Your task to perform on an android device: turn on notifications settings in the gmail app Image 0: 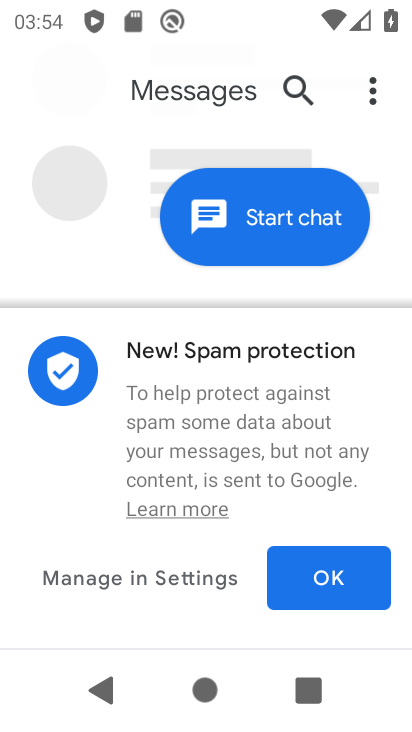
Step 0: press home button
Your task to perform on an android device: turn on notifications settings in the gmail app Image 1: 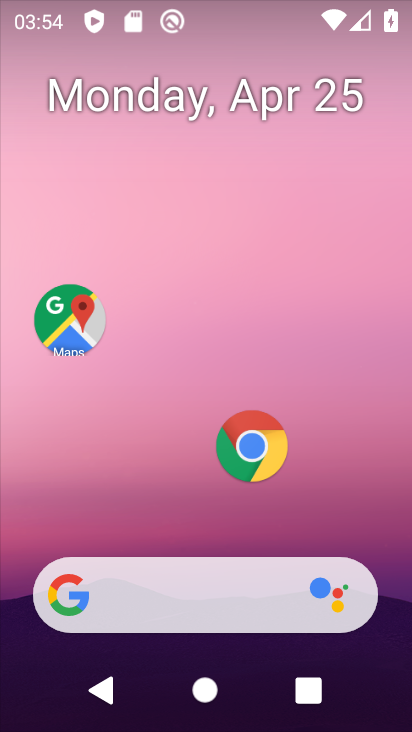
Step 1: drag from (151, 506) to (217, 162)
Your task to perform on an android device: turn on notifications settings in the gmail app Image 2: 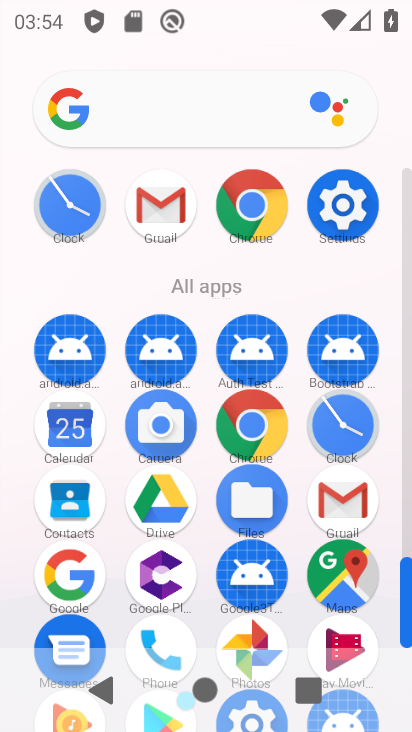
Step 2: click (347, 485)
Your task to perform on an android device: turn on notifications settings in the gmail app Image 3: 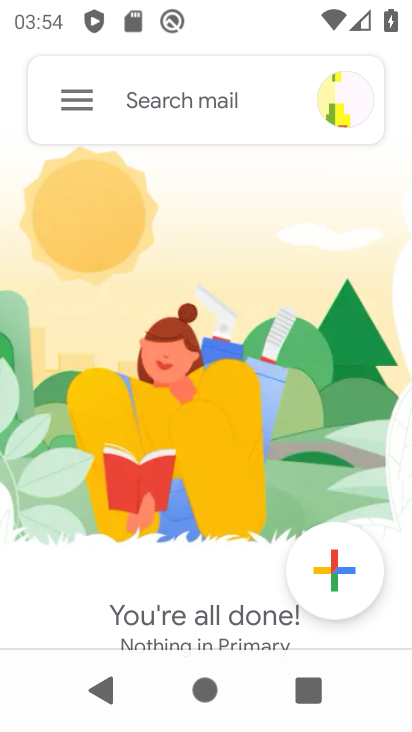
Step 3: click (103, 104)
Your task to perform on an android device: turn on notifications settings in the gmail app Image 4: 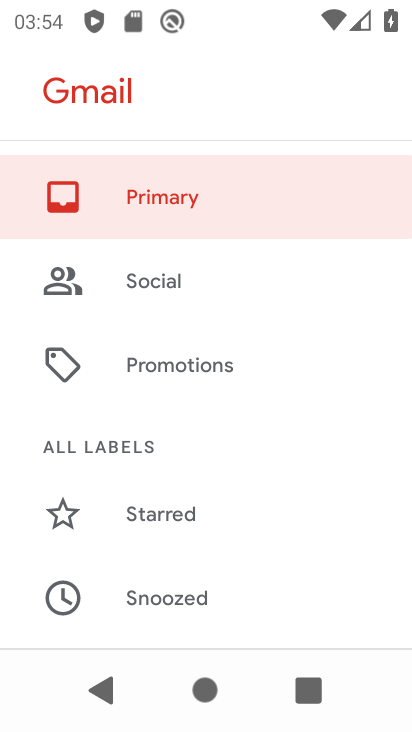
Step 4: drag from (167, 557) to (201, 213)
Your task to perform on an android device: turn on notifications settings in the gmail app Image 5: 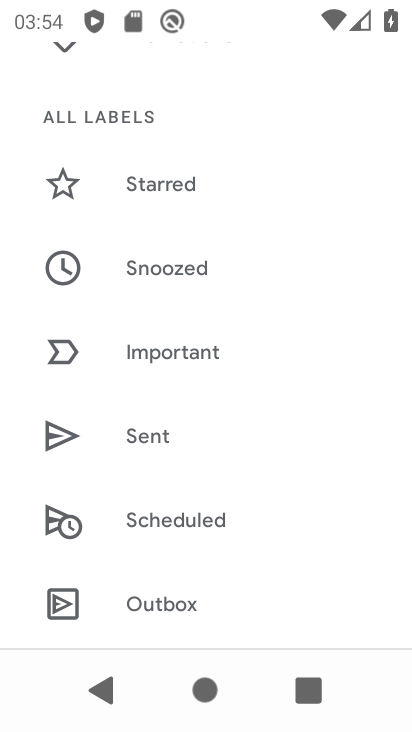
Step 5: drag from (209, 592) to (241, 96)
Your task to perform on an android device: turn on notifications settings in the gmail app Image 6: 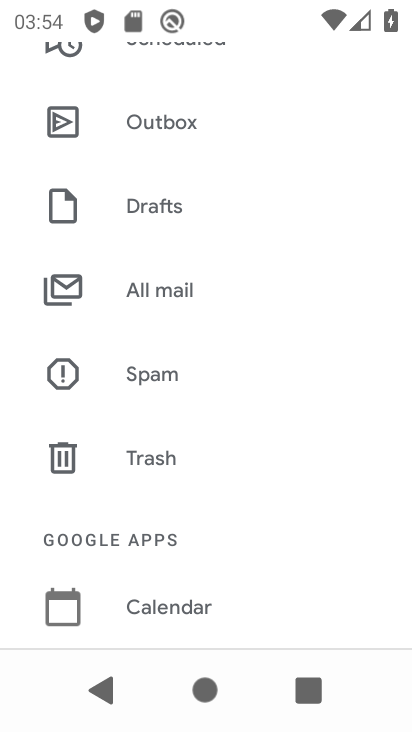
Step 6: drag from (189, 517) to (200, 251)
Your task to perform on an android device: turn on notifications settings in the gmail app Image 7: 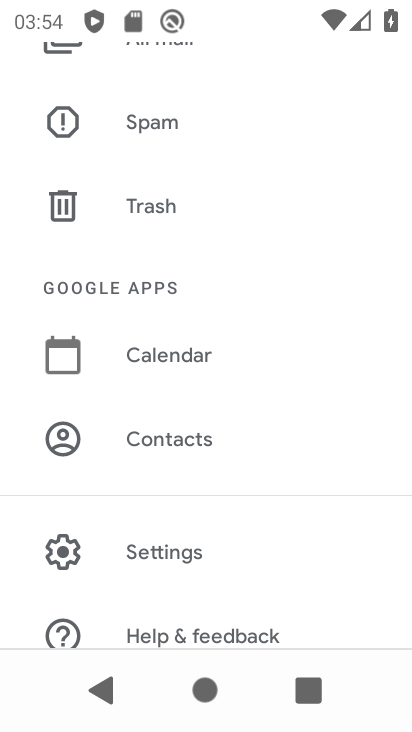
Step 7: click (152, 539)
Your task to perform on an android device: turn on notifications settings in the gmail app Image 8: 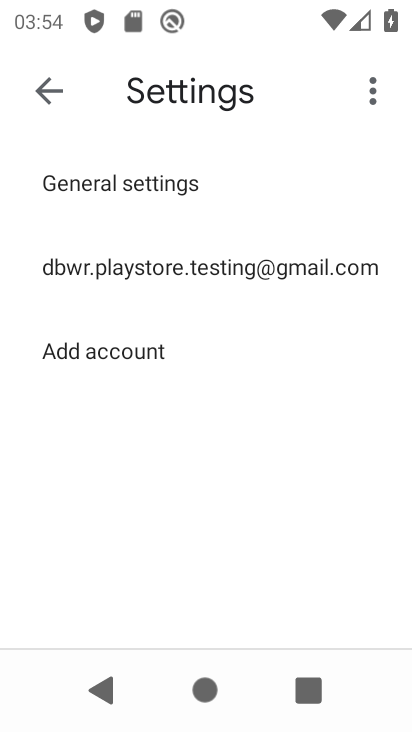
Step 8: click (206, 271)
Your task to perform on an android device: turn on notifications settings in the gmail app Image 9: 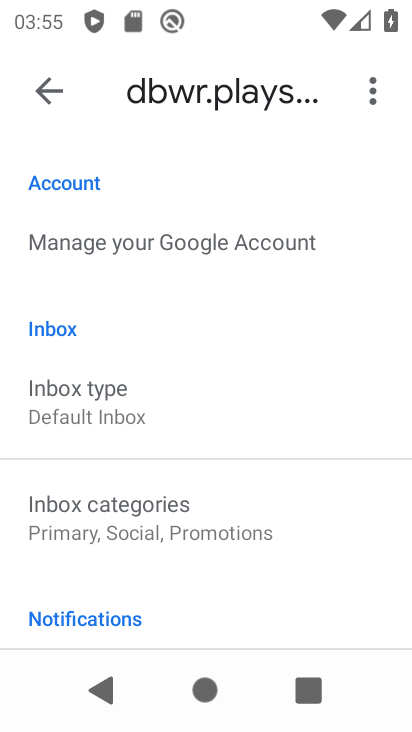
Step 9: drag from (135, 548) to (212, 236)
Your task to perform on an android device: turn on notifications settings in the gmail app Image 10: 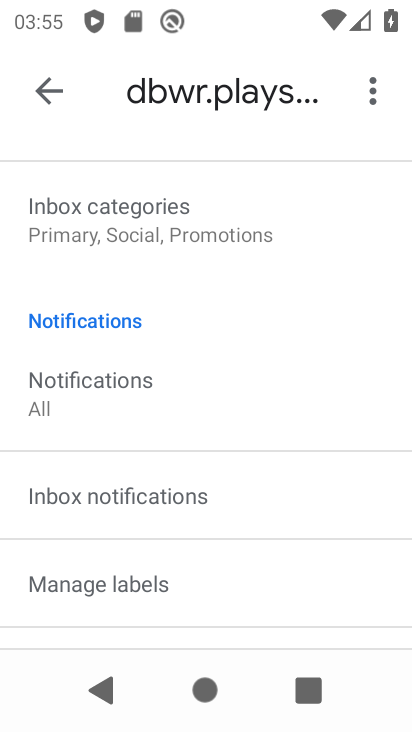
Step 10: click (199, 399)
Your task to perform on an android device: turn on notifications settings in the gmail app Image 11: 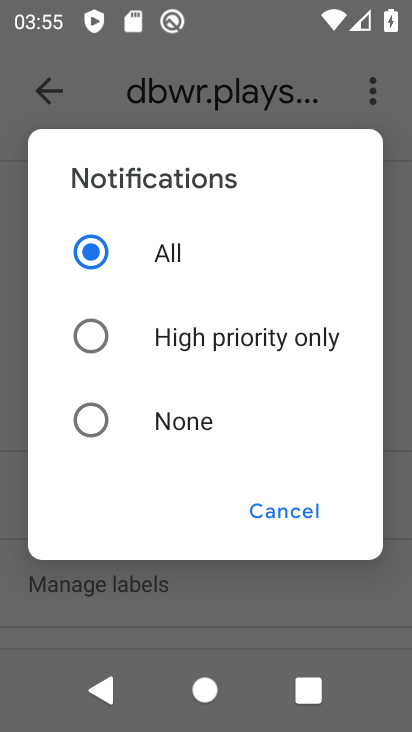
Step 11: task complete